Your task to perform on an android device: What's the weather today? Image 0: 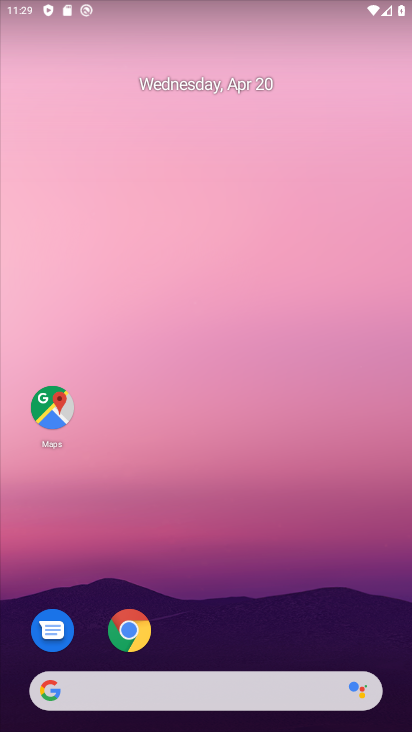
Step 0: drag from (265, 256) to (290, 79)
Your task to perform on an android device: What's the weather today? Image 1: 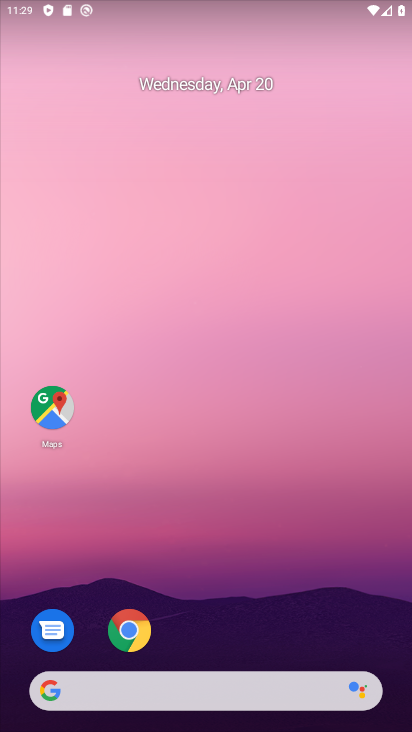
Step 1: drag from (189, 624) to (267, 189)
Your task to perform on an android device: What's the weather today? Image 2: 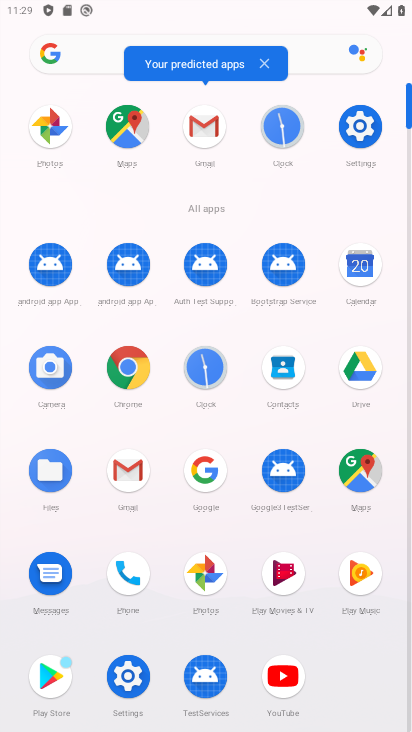
Step 2: click (127, 360)
Your task to perform on an android device: What's the weather today? Image 3: 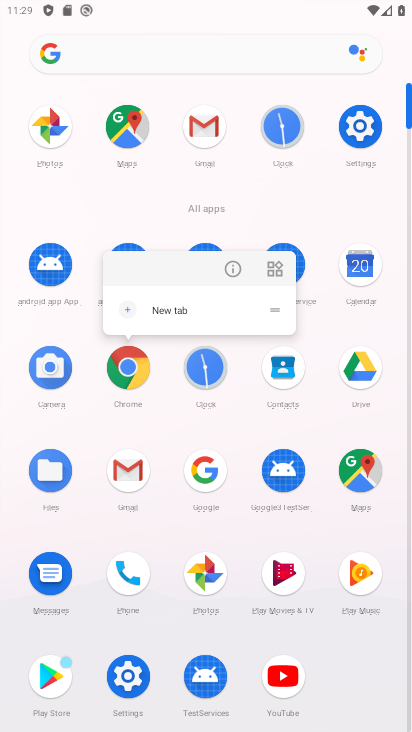
Step 3: click (235, 272)
Your task to perform on an android device: What's the weather today? Image 4: 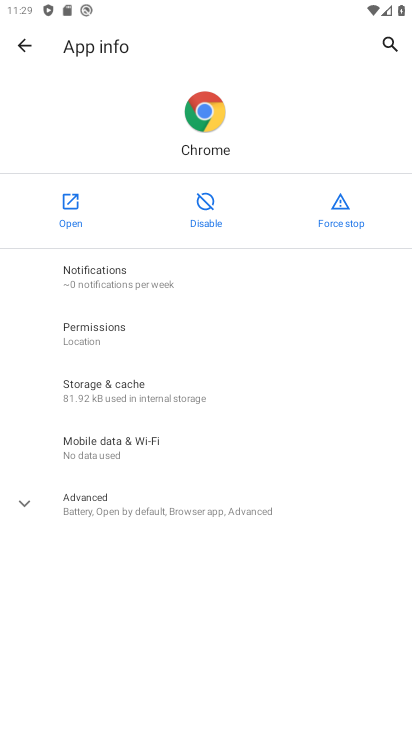
Step 4: click (64, 196)
Your task to perform on an android device: What's the weather today? Image 5: 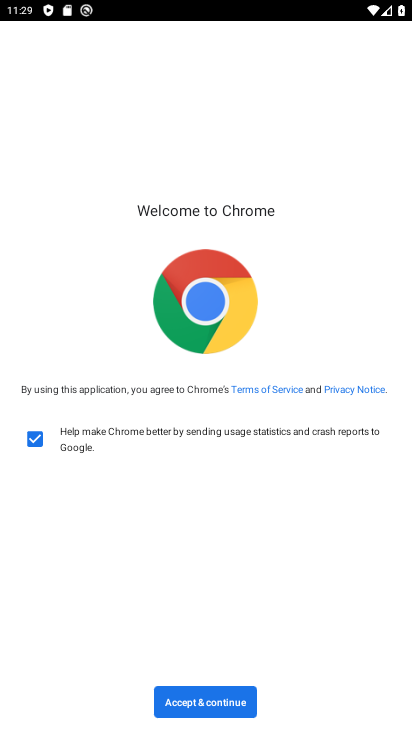
Step 5: click (225, 697)
Your task to perform on an android device: What's the weather today? Image 6: 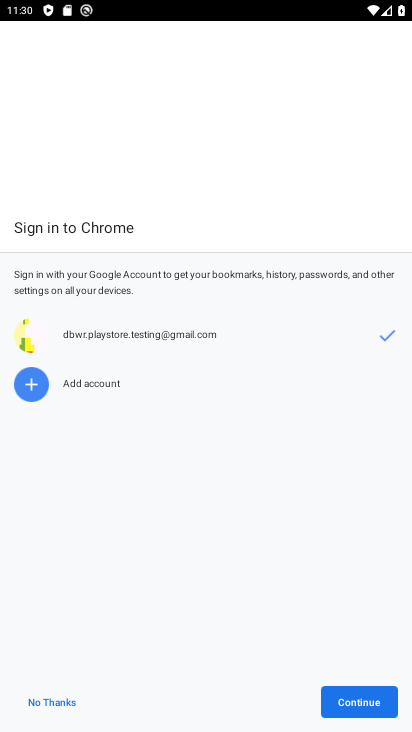
Step 6: click (383, 694)
Your task to perform on an android device: What's the weather today? Image 7: 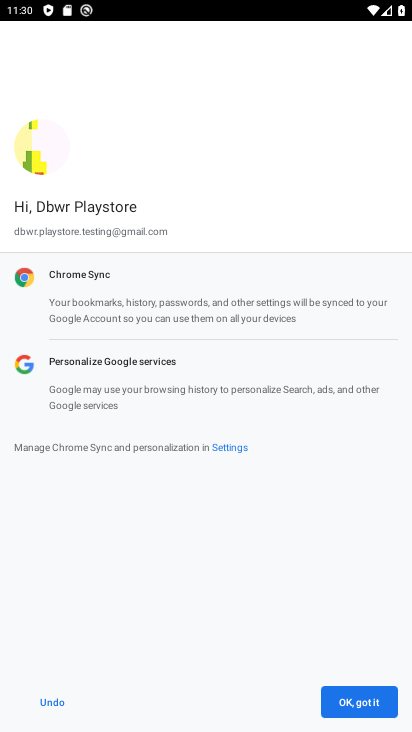
Step 7: click (367, 704)
Your task to perform on an android device: What's the weather today? Image 8: 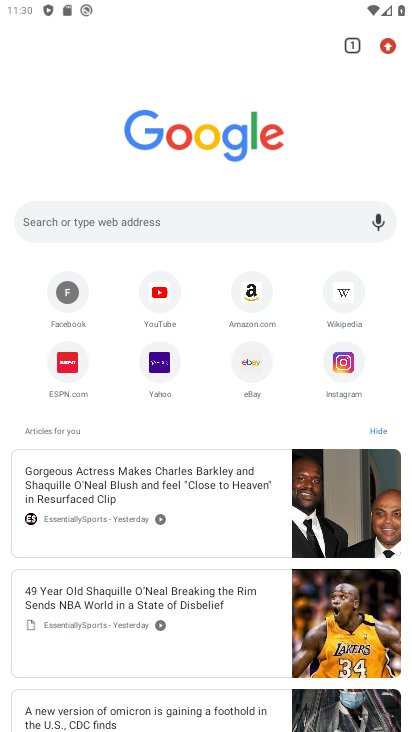
Step 8: click (153, 212)
Your task to perform on an android device: What's the weather today? Image 9: 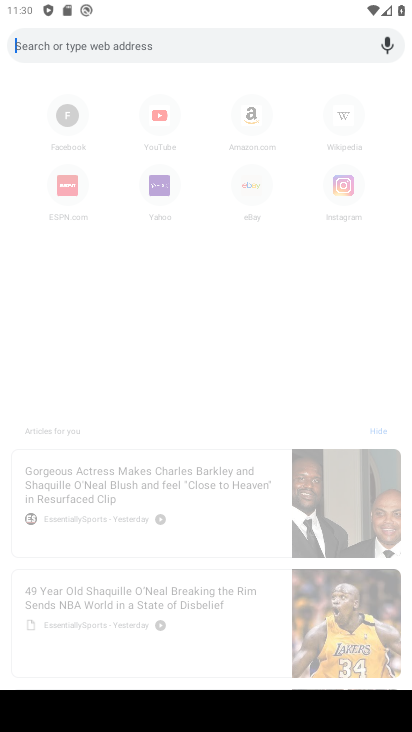
Step 9: type "weather today"
Your task to perform on an android device: What's the weather today? Image 10: 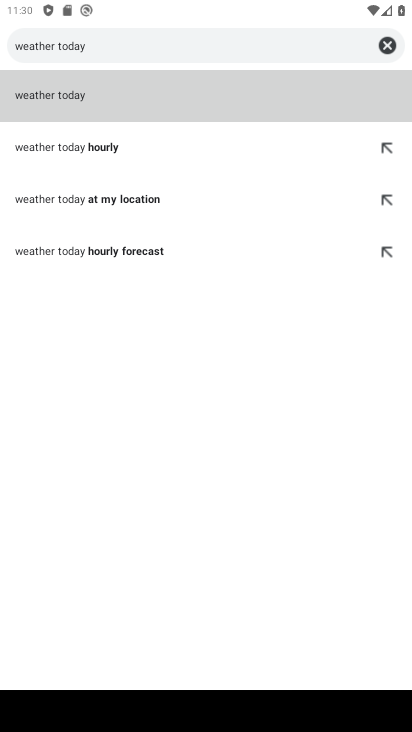
Step 10: click (60, 112)
Your task to perform on an android device: What's the weather today? Image 11: 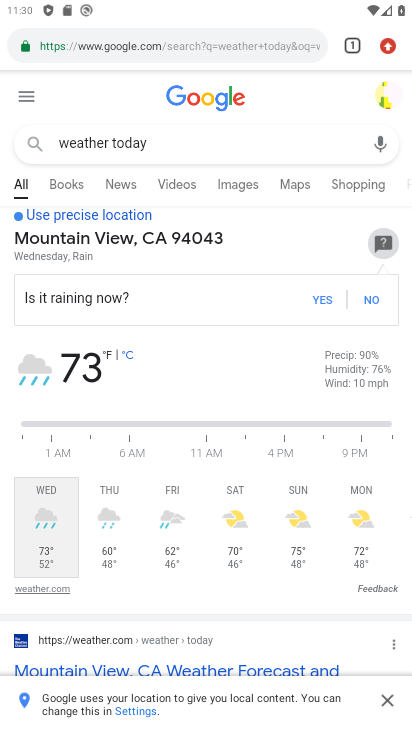
Step 11: task complete